Your task to perform on an android device: Do I have any events this weekend? Image 0: 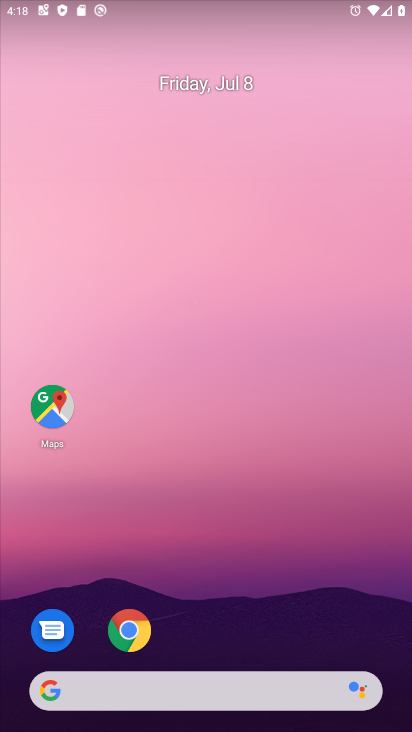
Step 0: drag from (214, 656) to (228, 140)
Your task to perform on an android device: Do I have any events this weekend? Image 1: 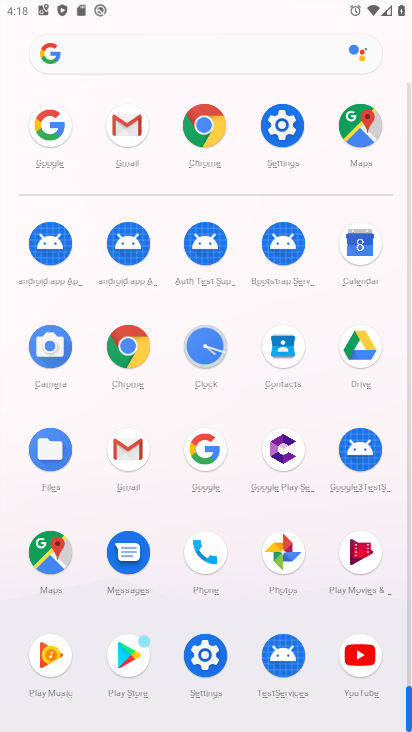
Step 1: click (354, 240)
Your task to perform on an android device: Do I have any events this weekend? Image 2: 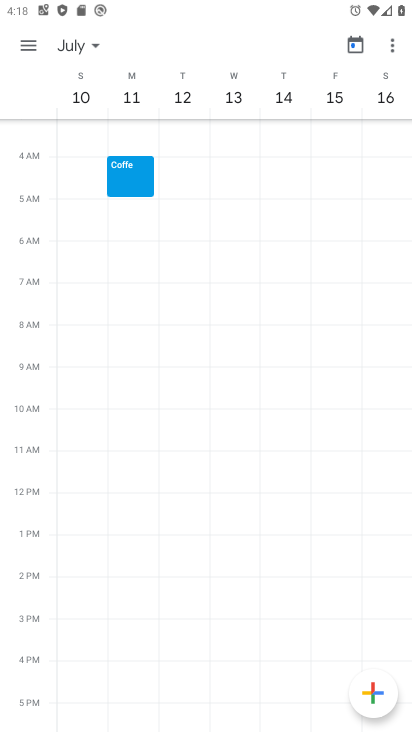
Step 2: click (358, 48)
Your task to perform on an android device: Do I have any events this weekend? Image 3: 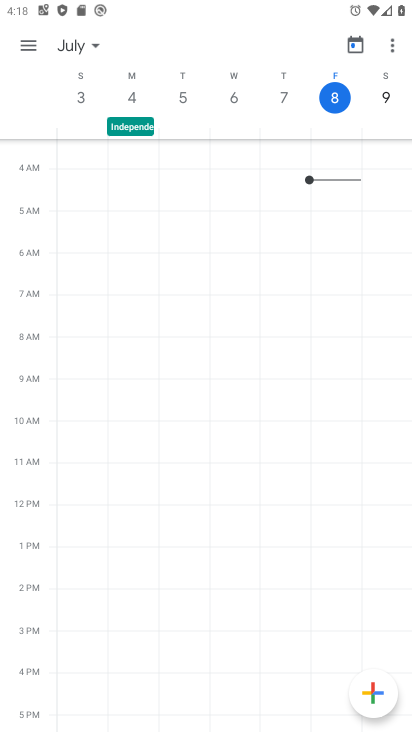
Step 3: click (90, 43)
Your task to perform on an android device: Do I have any events this weekend? Image 4: 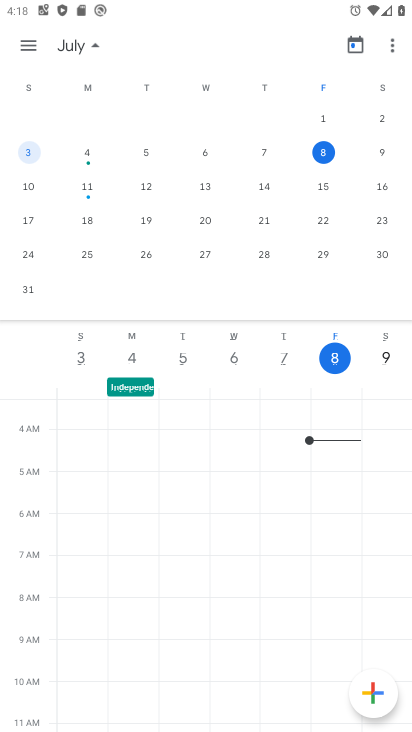
Step 4: click (372, 153)
Your task to perform on an android device: Do I have any events this weekend? Image 5: 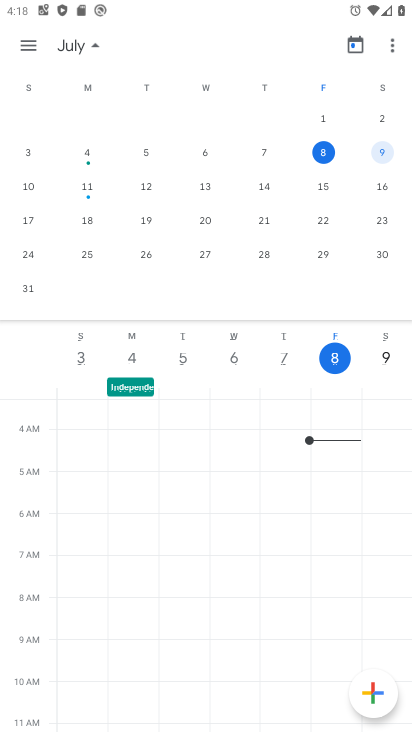
Step 5: click (27, 52)
Your task to perform on an android device: Do I have any events this weekend? Image 6: 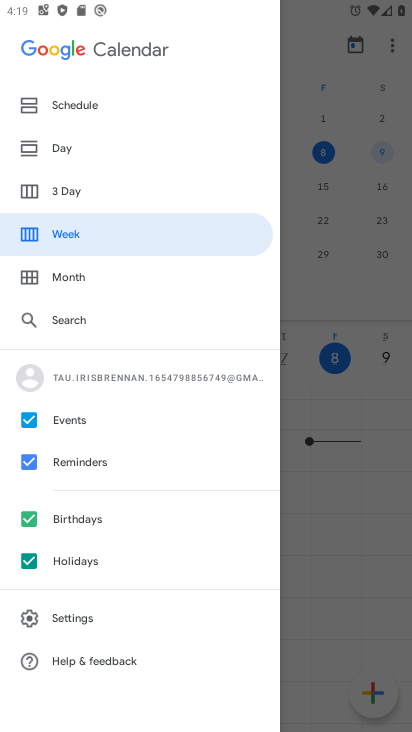
Step 6: click (52, 99)
Your task to perform on an android device: Do I have any events this weekend? Image 7: 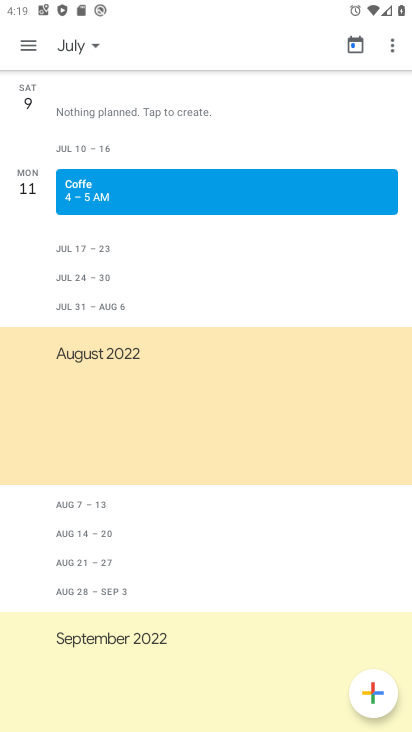
Step 7: task complete